Your task to perform on an android device: turn off notifications settings in the gmail app Image 0: 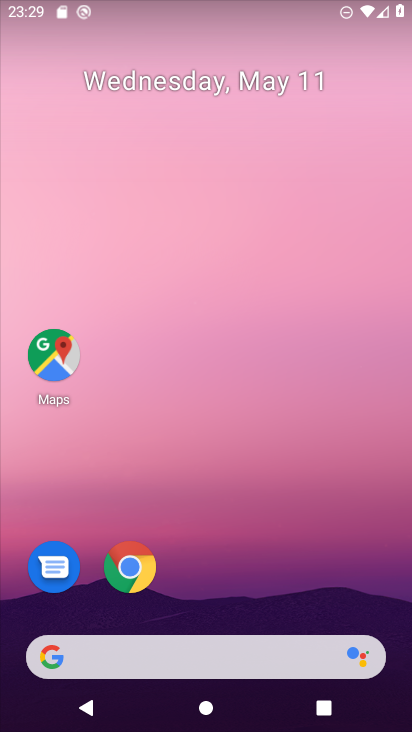
Step 0: drag from (162, 701) to (267, 92)
Your task to perform on an android device: turn off notifications settings in the gmail app Image 1: 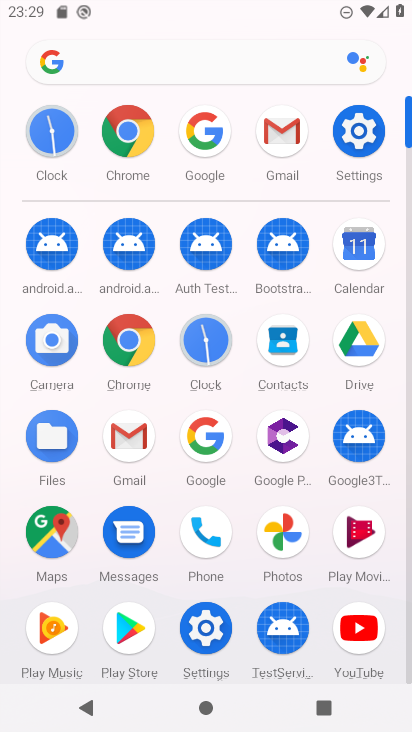
Step 1: click (304, 125)
Your task to perform on an android device: turn off notifications settings in the gmail app Image 2: 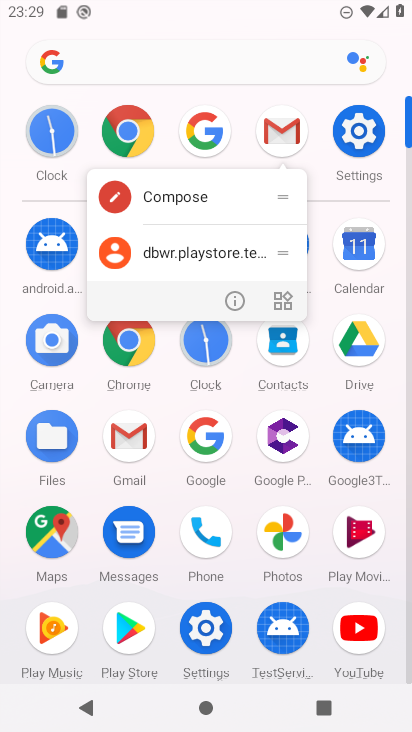
Step 2: click (227, 303)
Your task to perform on an android device: turn off notifications settings in the gmail app Image 3: 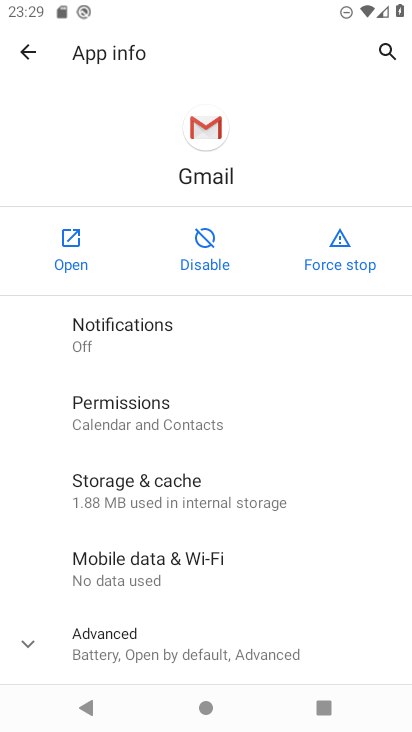
Step 3: click (162, 330)
Your task to perform on an android device: turn off notifications settings in the gmail app Image 4: 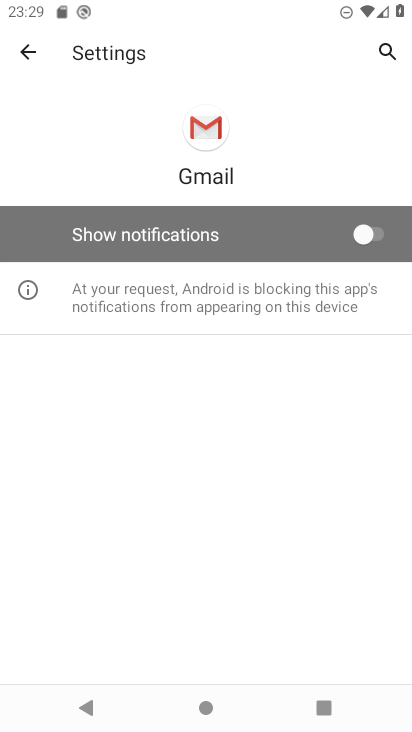
Step 4: task complete